Your task to perform on an android device: What's the weather? Image 0: 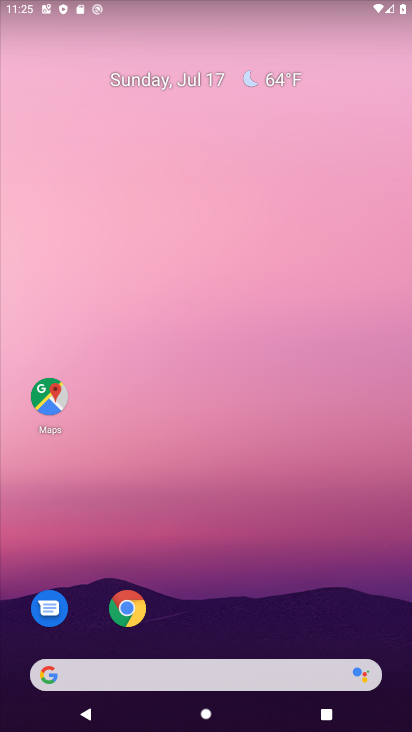
Step 0: drag from (391, 662) to (174, 69)
Your task to perform on an android device: What's the weather? Image 1: 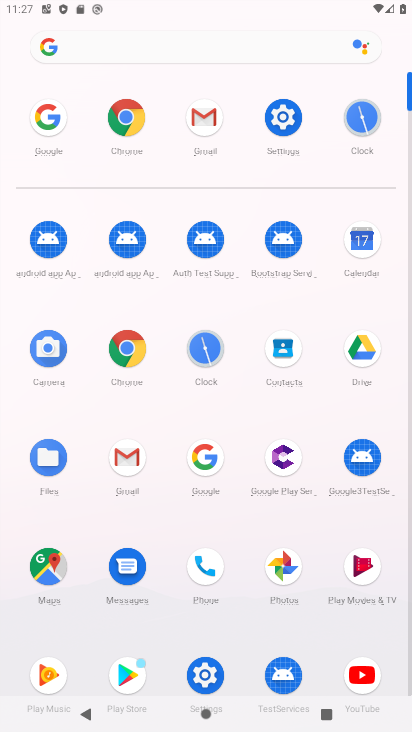
Step 1: click (202, 468)
Your task to perform on an android device: What's the weather? Image 2: 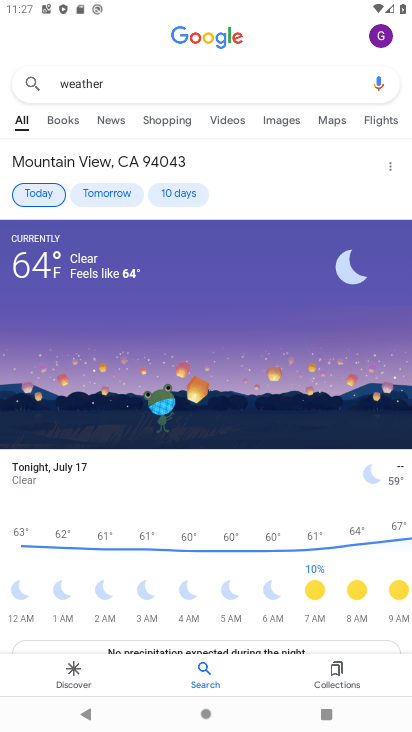
Step 2: task complete